Your task to perform on an android device: Go to settings Image 0: 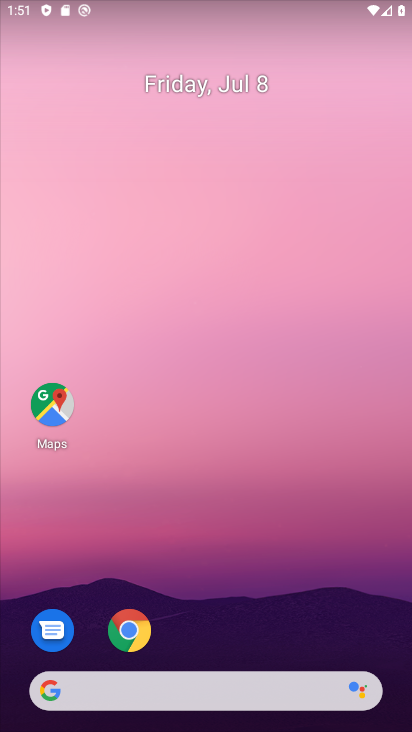
Step 0: drag from (348, 618) to (234, 91)
Your task to perform on an android device: Go to settings Image 1: 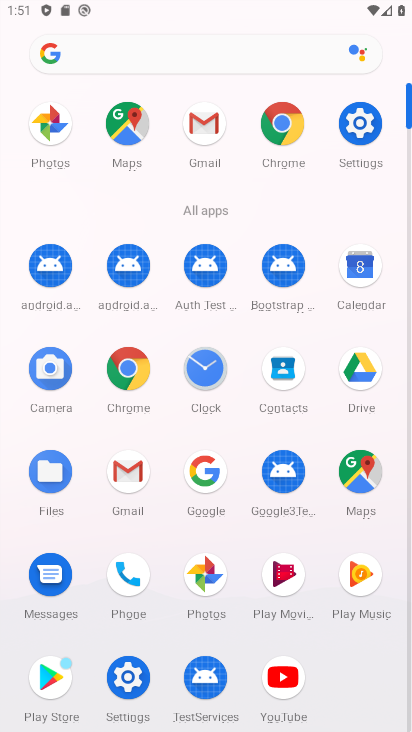
Step 1: click (356, 126)
Your task to perform on an android device: Go to settings Image 2: 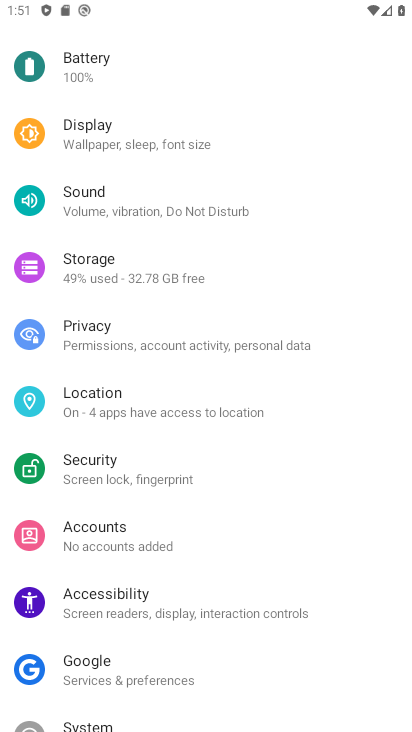
Step 2: task complete